Your task to perform on an android device: Open the stopwatch Image 0: 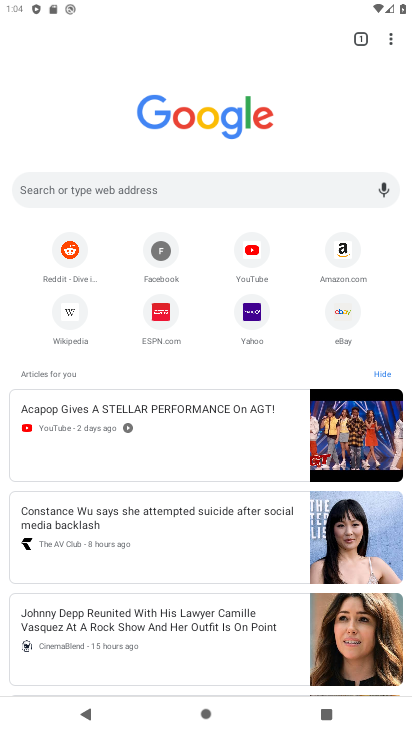
Step 0: drag from (218, 590) to (215, 433)
Your task to perform on an android device: Open the stopwatch Image 1: 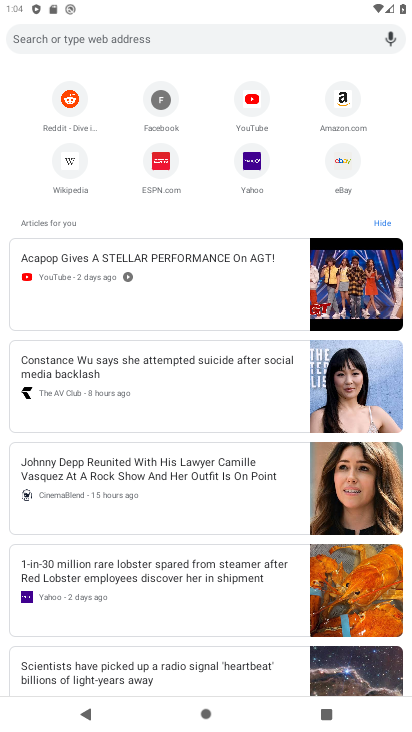
Step 1: drag from (247, 327) to (289, 679)
Your task to perform on an android device: Open the stopwatch Image 2: 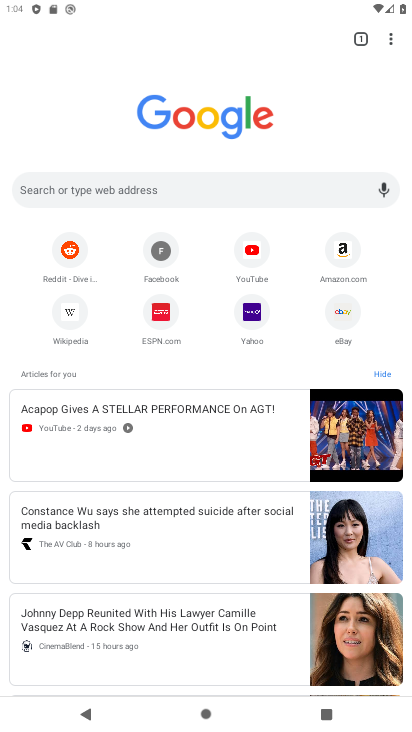
Step 2: press home button
Your task to perform on an android device: Open the stopwatch Image 3: 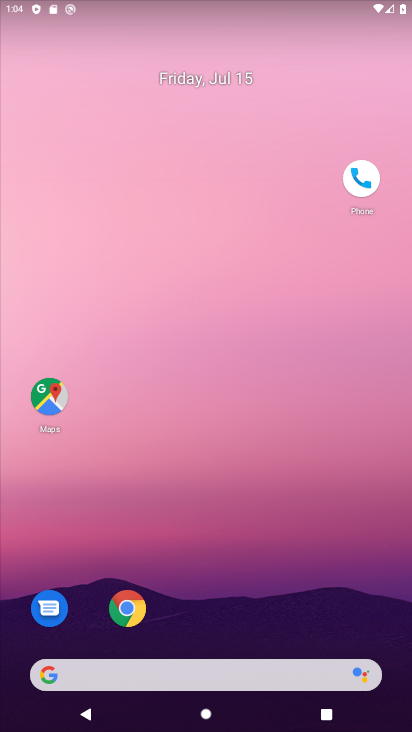
Step 3: drag from (213, 633) to (237, 286)
Your task to perform on an android device: Open the stopwatch Image 4: 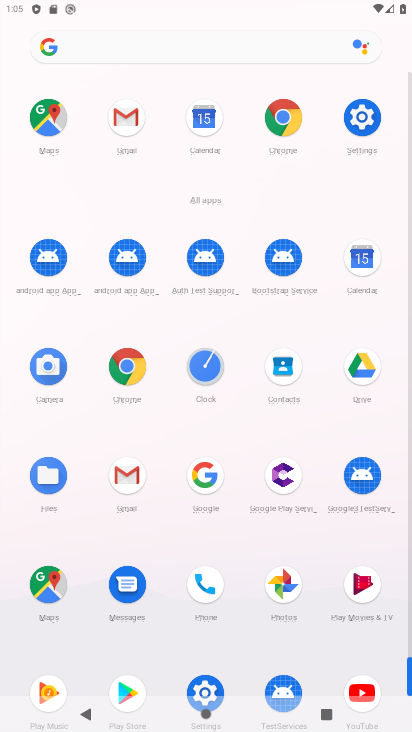
Step 4: click (212, 352)
Your task to perform on an android device: Open the stopwatch Image 5: 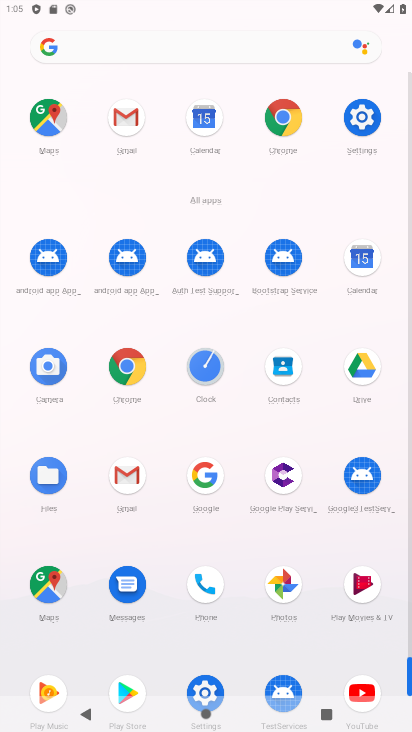
Step 5: click (212, 352)
Your task to perform on an android device: Open the stopwatch Image 6: 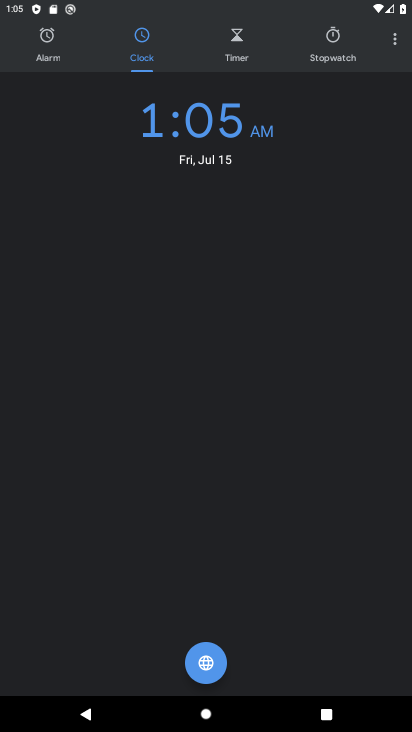
Step 6: click (336, 55)
Your task to perform on an android device: Open the stopwatch Image 7: 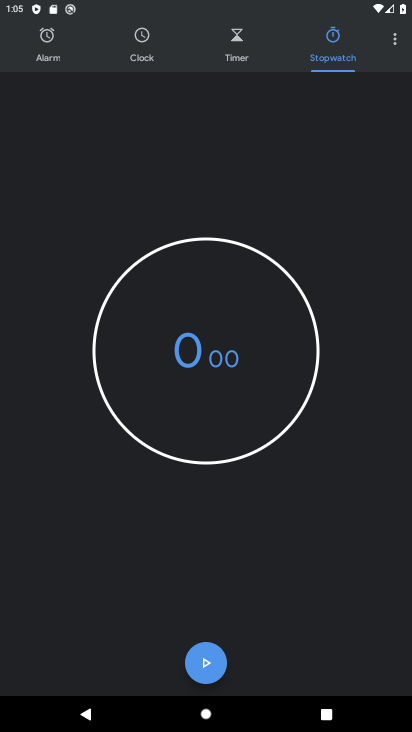
Step 7: drag from (197, 416) to (211, 328)
Your task to perform on an android device: Open the stopwatch Image 8: 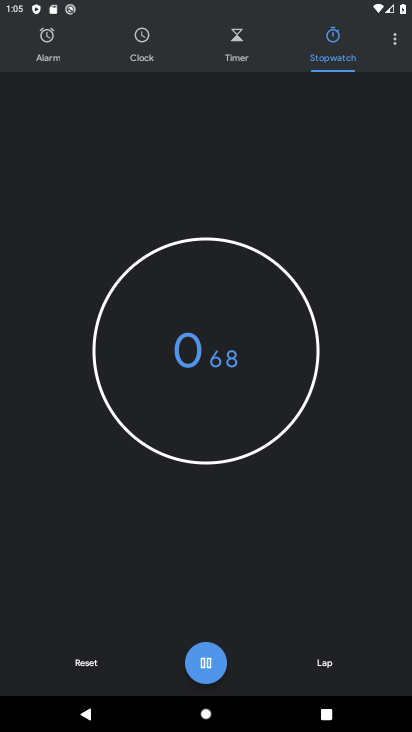
Step 8: click (193, 671)
Your task to perform on an android device: Open the stopwatch Image 9: 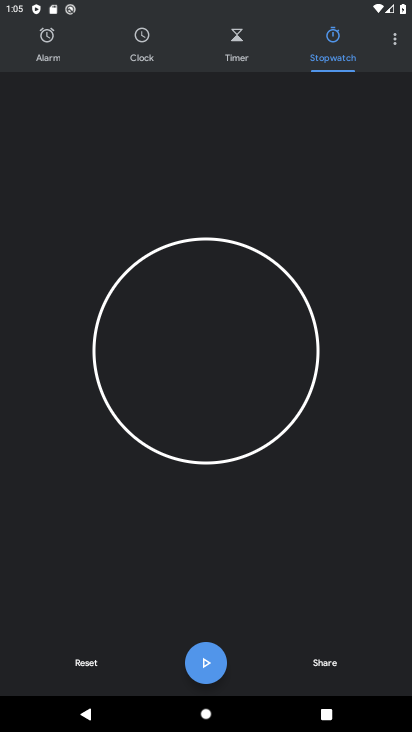
Step 9: click (211, 657)
Your task to perform on an android device: Open the stopwatch Image 10: 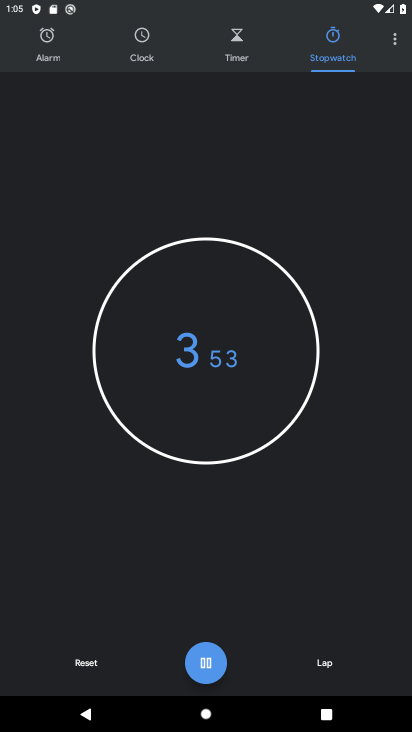
Step 10: task complete